Your task to perform on an android device: Clear the cart on costco. Add "razer blade" to the cart on costco, then select checkout. Image 0: 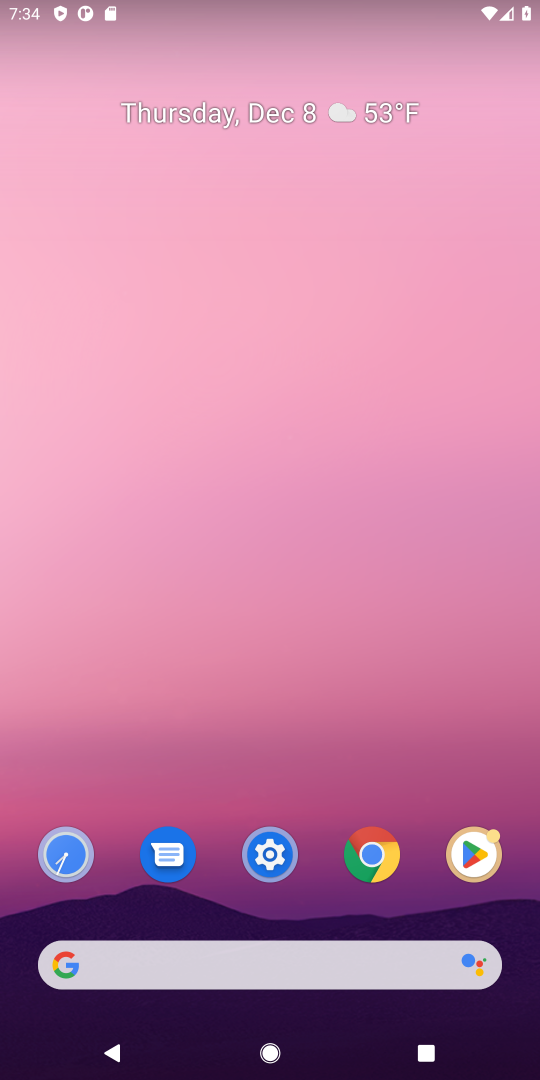
Step 0: press home button
Your task to perform on an android device: Clear the cart on costco. Add "razer blade" to the cart on costco, then select checkout. Image 1: 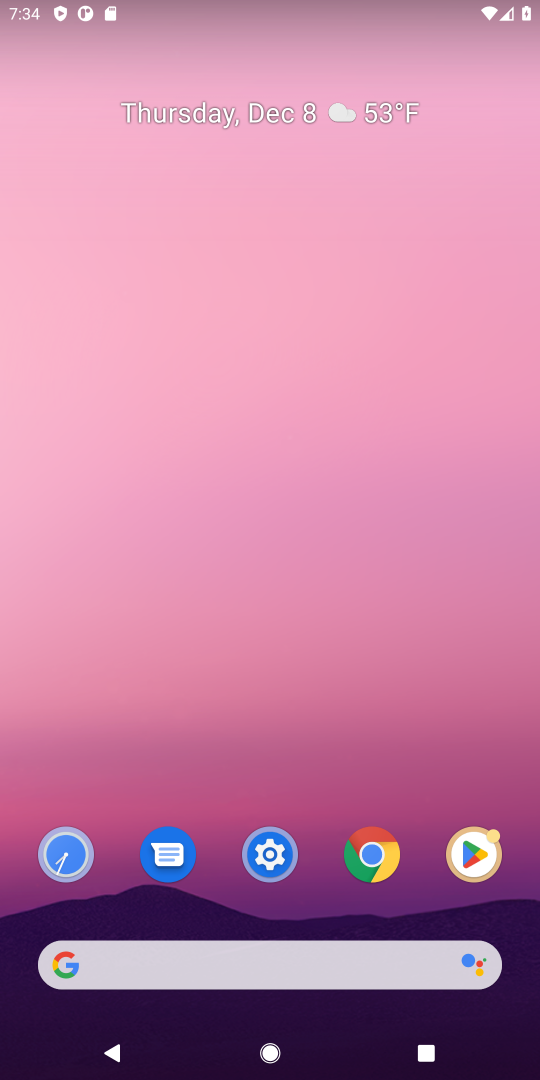
Step 1: click (87, 958)
Your task to perform on an android device: Clear the cart on costco. Add "razer blade" to the cart on costco, then select checkout. Image 2: 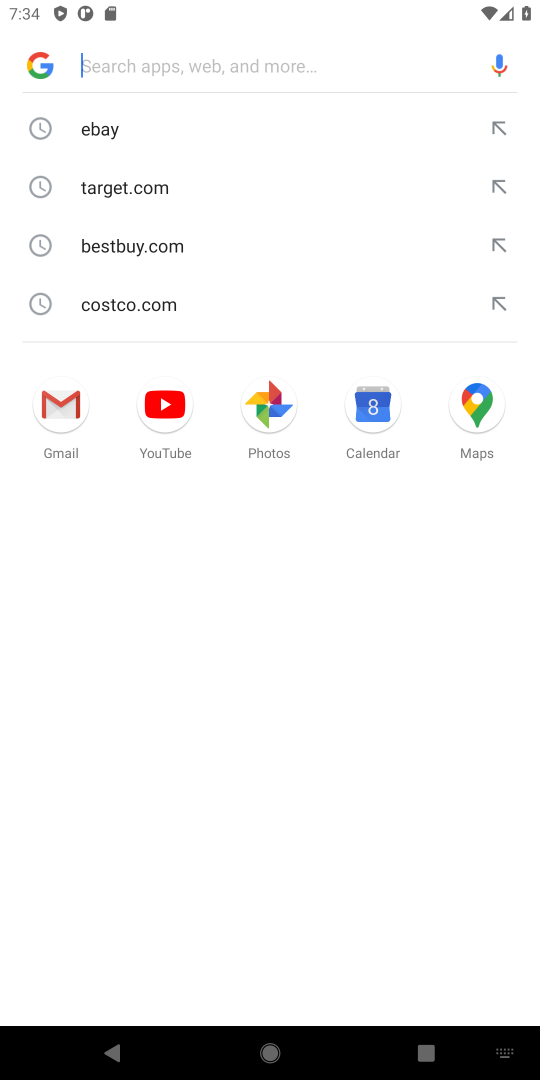
Step 2: type "costco"
Your task to perform on an android device: Clear the cart on costco. Add "razer blade" to the cart on costco, then select checkout. Image 3: 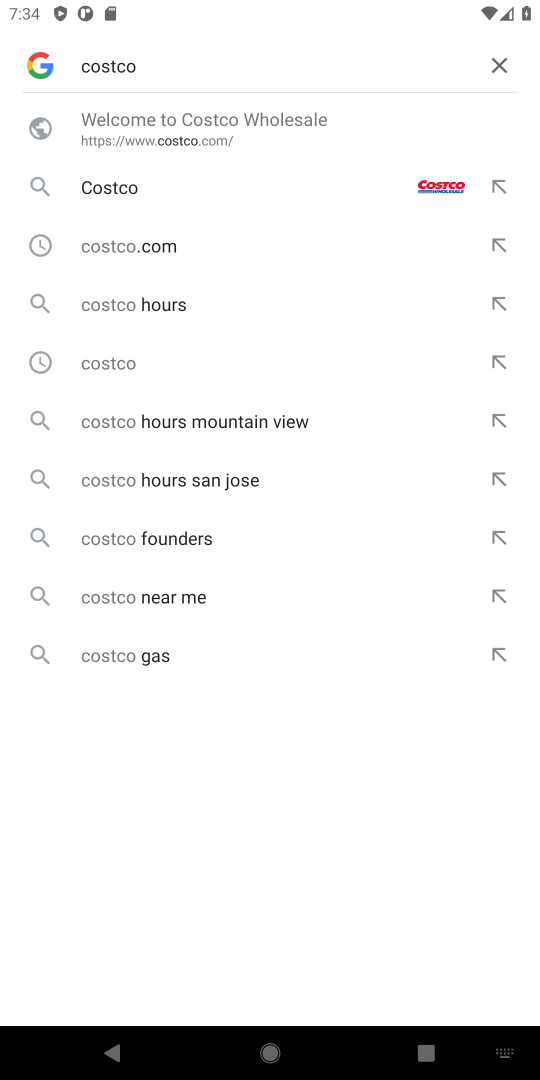
Step 3: press enter
Your task to perform on an android device: Clear the cart on costco. Add "razer blade" to the cart on costco, then select checkout. Image 4: 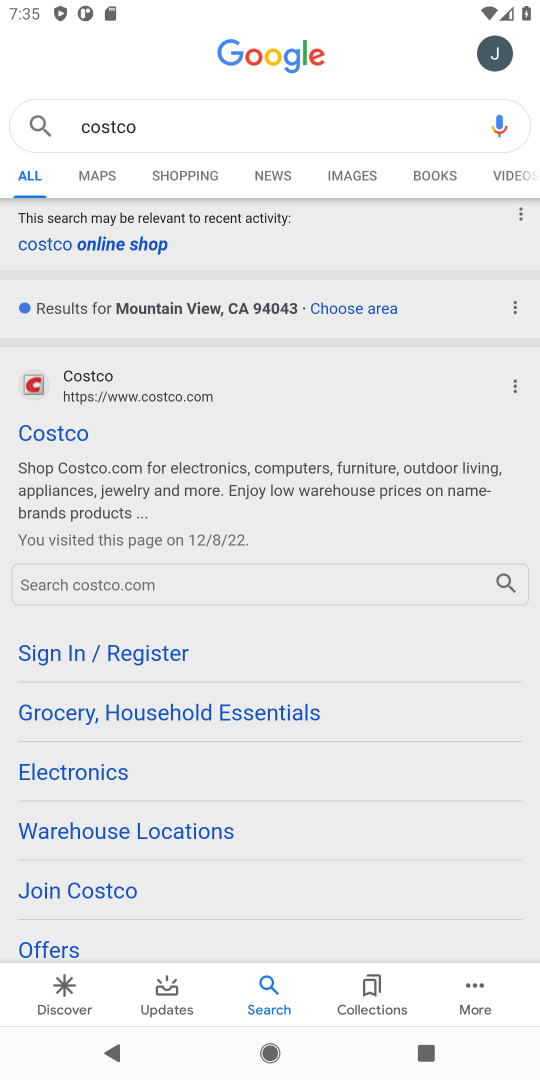
Step 4: click (43, 437)
Your task to perform on an android device: Clear the cart on costco. Add "razer blade" to the cart on costco, then select checkout. Image 5: 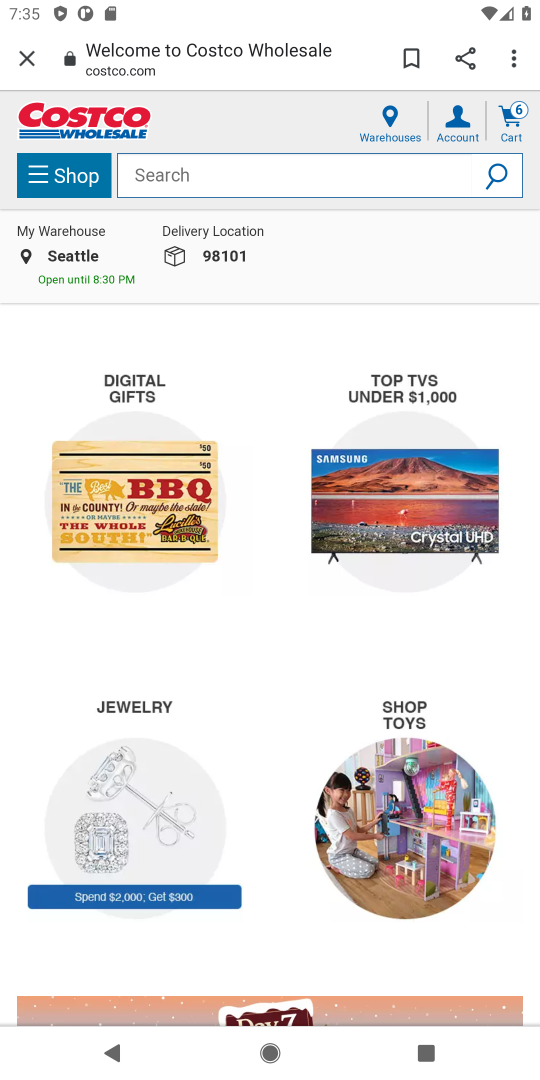
Step 5: click (508, 114)
Your task to perform on an android device: Clear the cart on costco. Add "razer blade" to the cart on costco, then select checkout. Image 6: 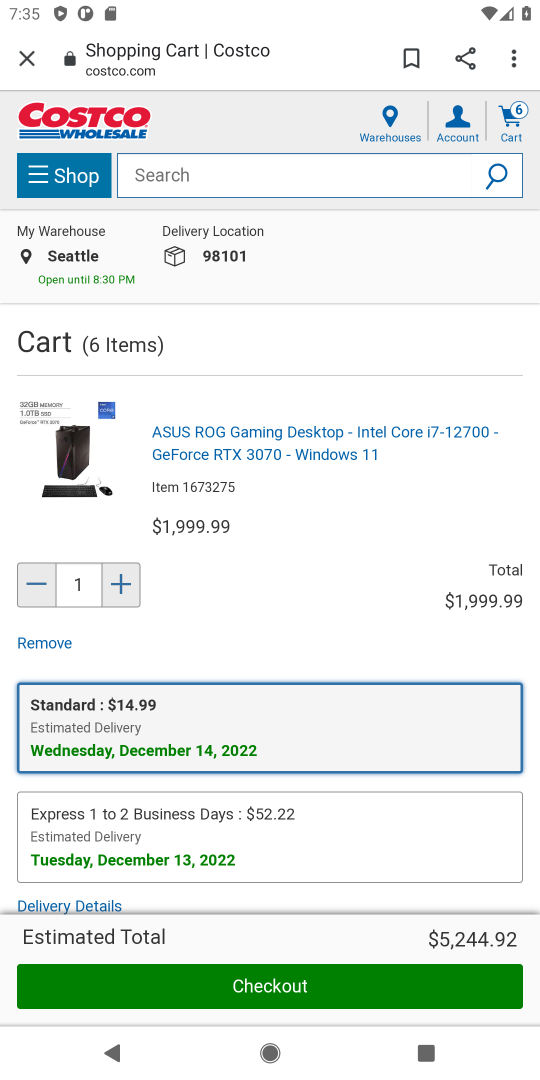
Step 6: click (30, 647)
Your task to perform on an android device: Clear the cart on costco. Add "razer blade" to the cart on costco, then select checkout. Image 7: 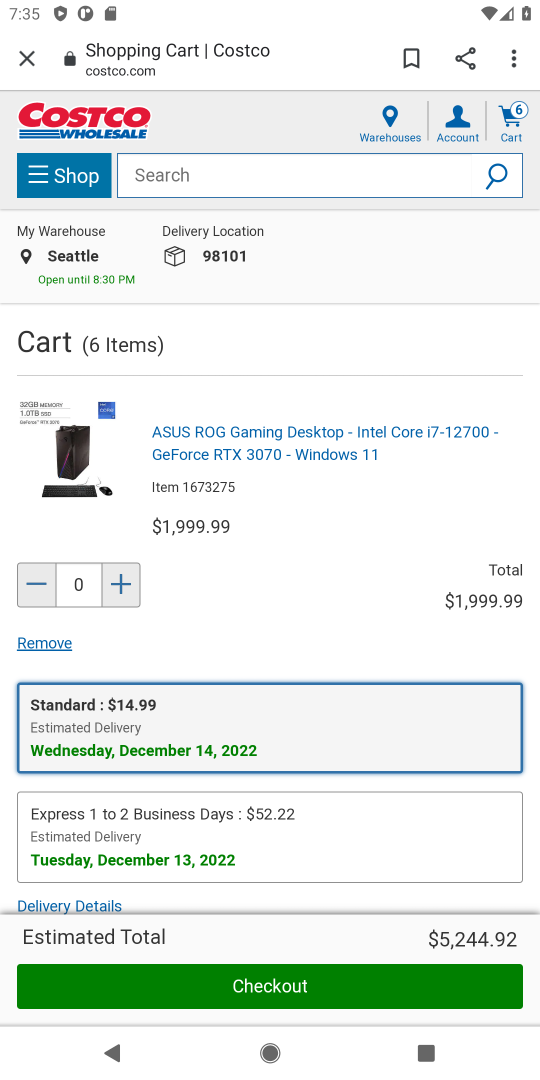
Step 7: drag from (320, 799) to (325, 381)
Your task to perform on an android device: Clear the cart on costco. Add "razer blade" to the cart on costco, then select checkout. Image 8: 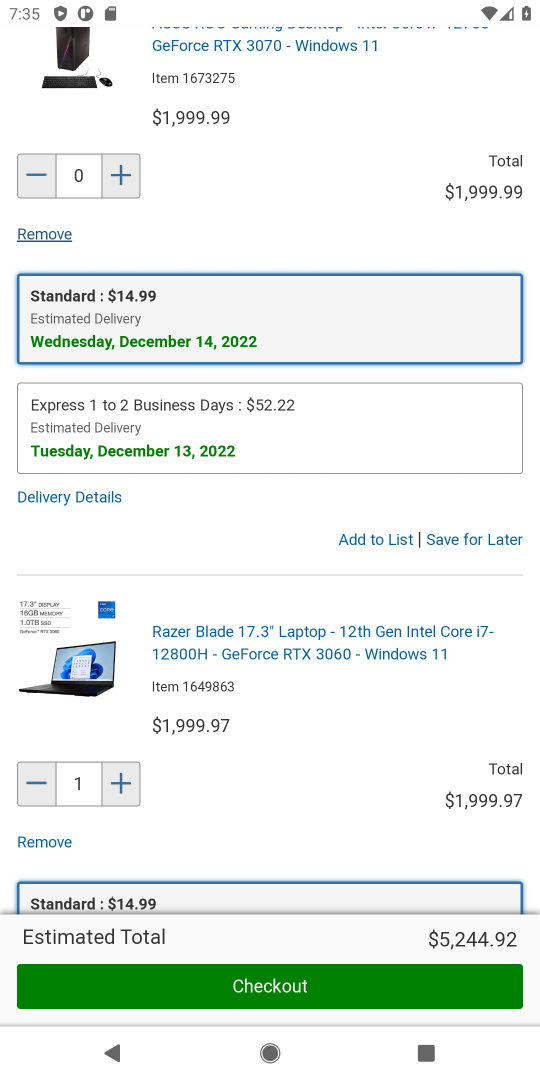
Step 8: click (31, 836)
Your task to perform on an android device: Clear the cart on costco. Add "razer blade" to the cart on costco, then select checkout. Image 9: 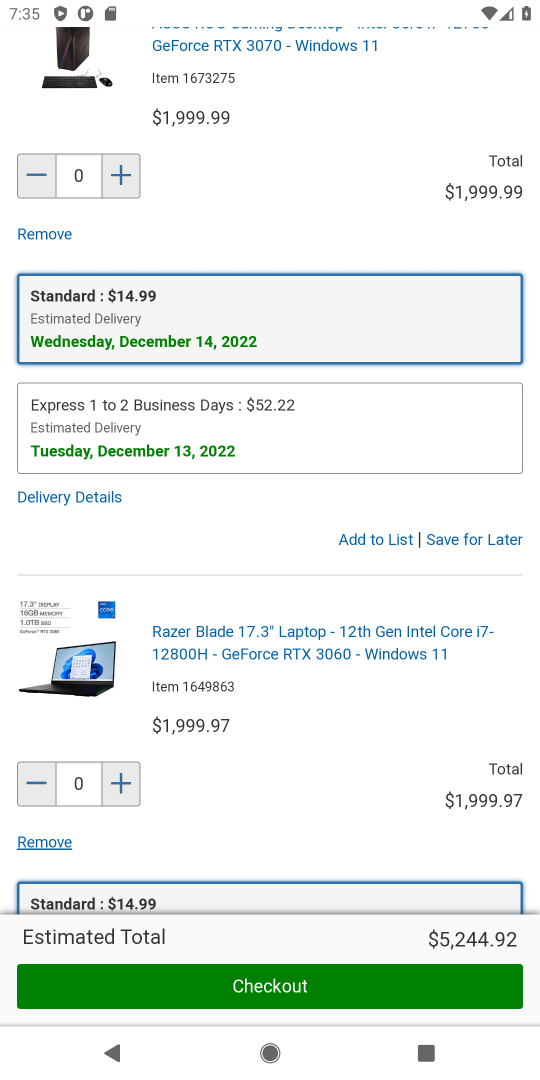
Step 9: drag from (257, 815) to (295, 370)
Your task to perform on an android device: Clear the cart on costco. Add "razer blade" to the cart on costco, then select checkout. Image 10: 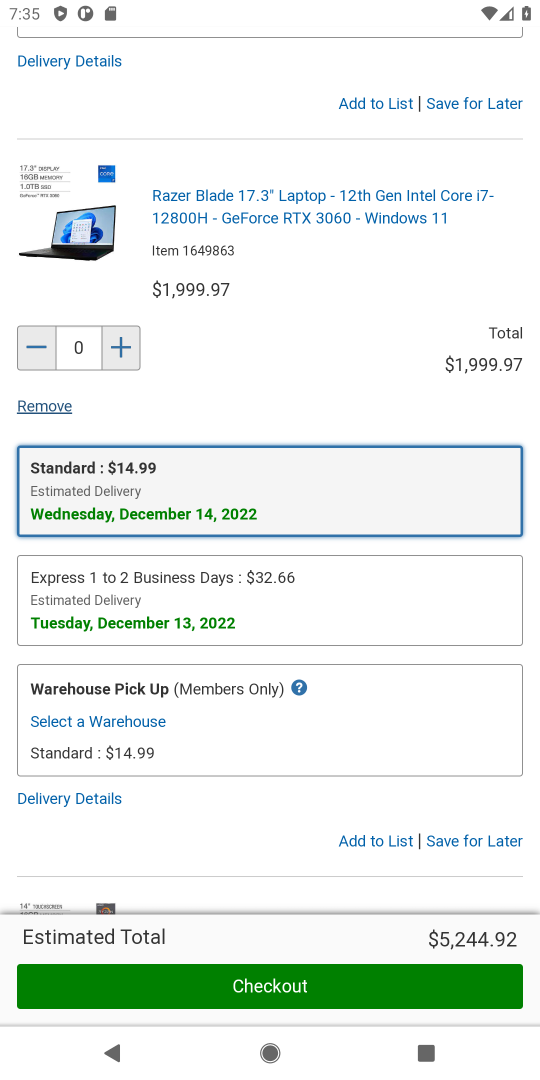
Step 10: drag from (323, 244) to (309, 825)
Your task to perform on an android device: Clear the cart on costco. Add "razer blade" to the cart on costco, then select checkout. Image 11: 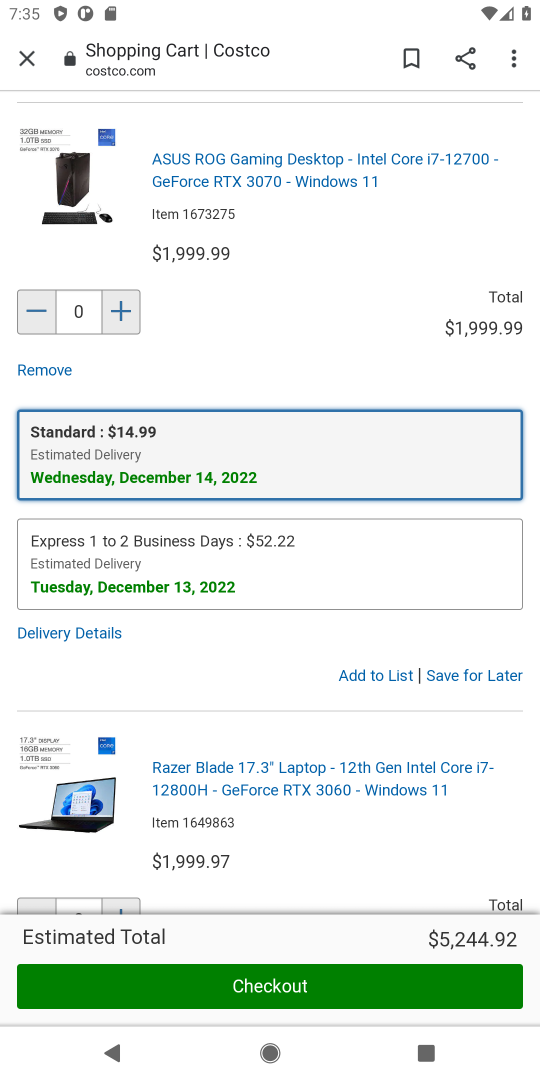
Step 11: drag from (347, 161) to (306, 750)
Your task to perform on an android device: Clear the cart on costco. Add "razer blade" to the cart on costco, then select checkout. Image 12: 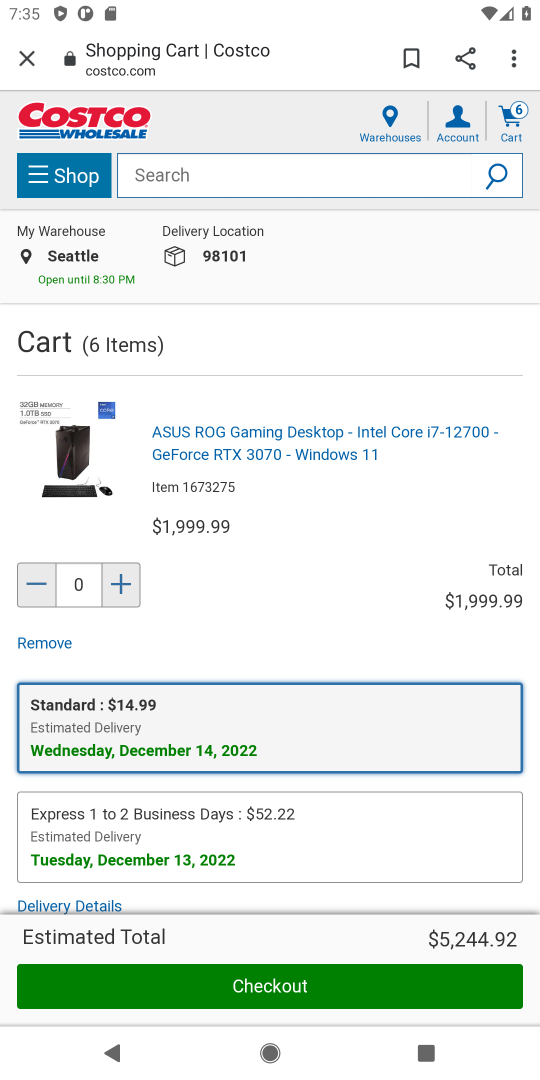
Step 12: click (180, 167)
Your task to perform on an android device: Clear the cart on costco. Add "razer blade" to the cart on costco, then select checkout. Image 13: 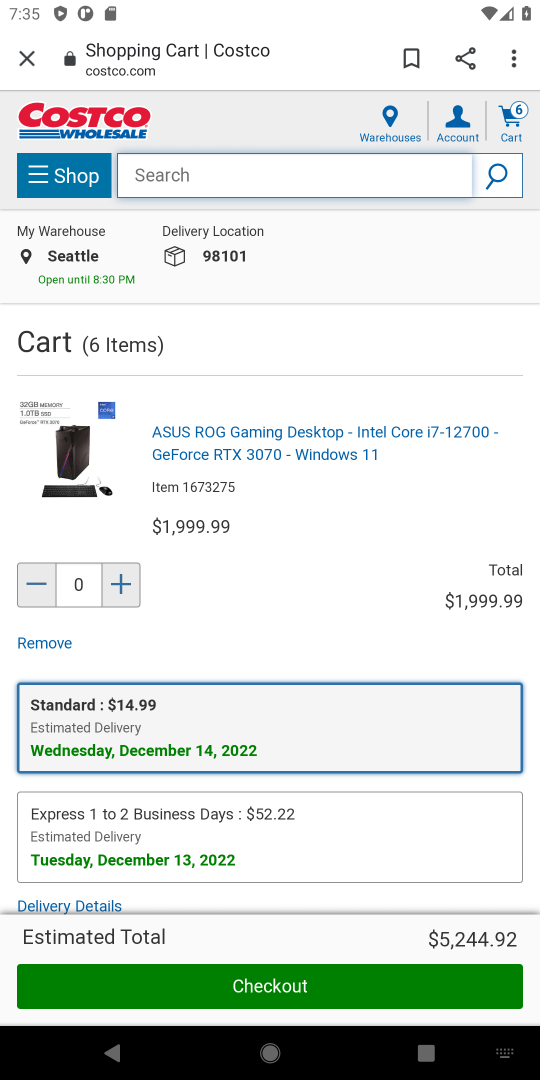
Step 13: type "razer blade"
Your task to perform on an android device: Clear the cart on costco. Add "razer blade" to the cart on costco, then select checkout. Image 14: 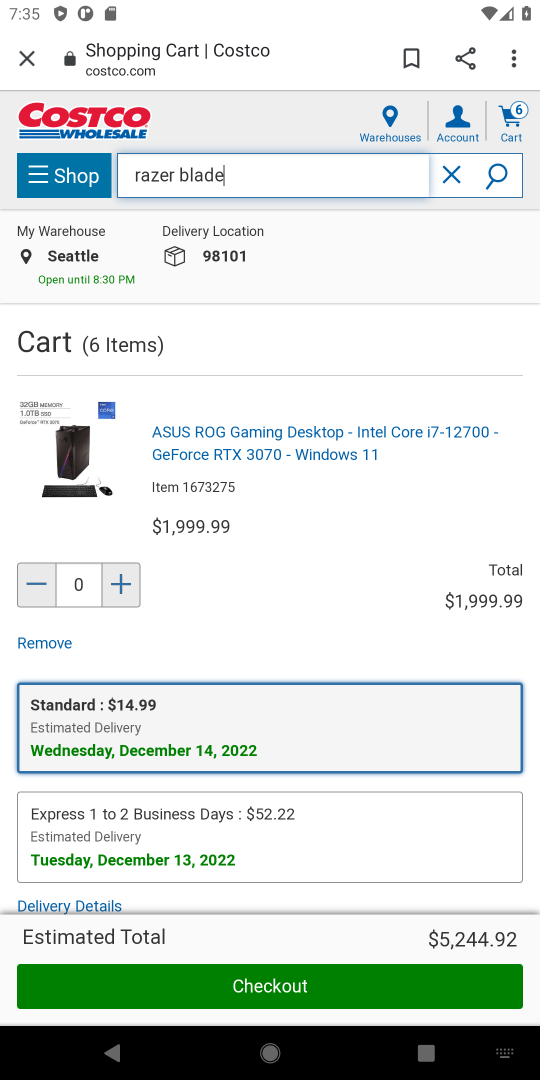
Step 14: press enter
Your task to perform on an android device: Clear the cart on costco. Add "razer blade" to the cart on costco, then select checkout. Image 15: 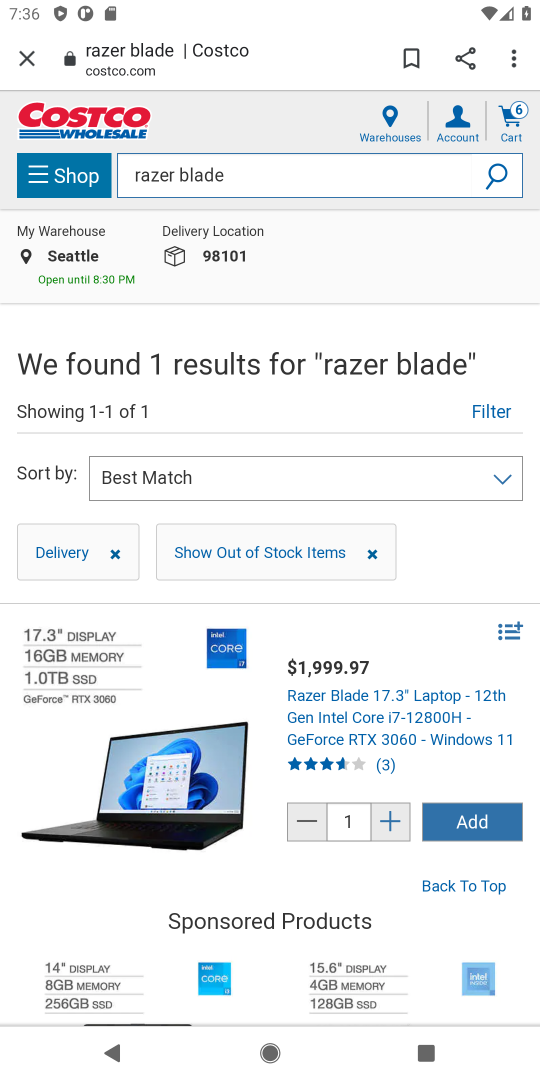
Step 15: click (481, 824)
Your task to perform on an android device: Clear the cart on costco. Add "razer blade" to the cart on costco, then select checkout. Image 16: 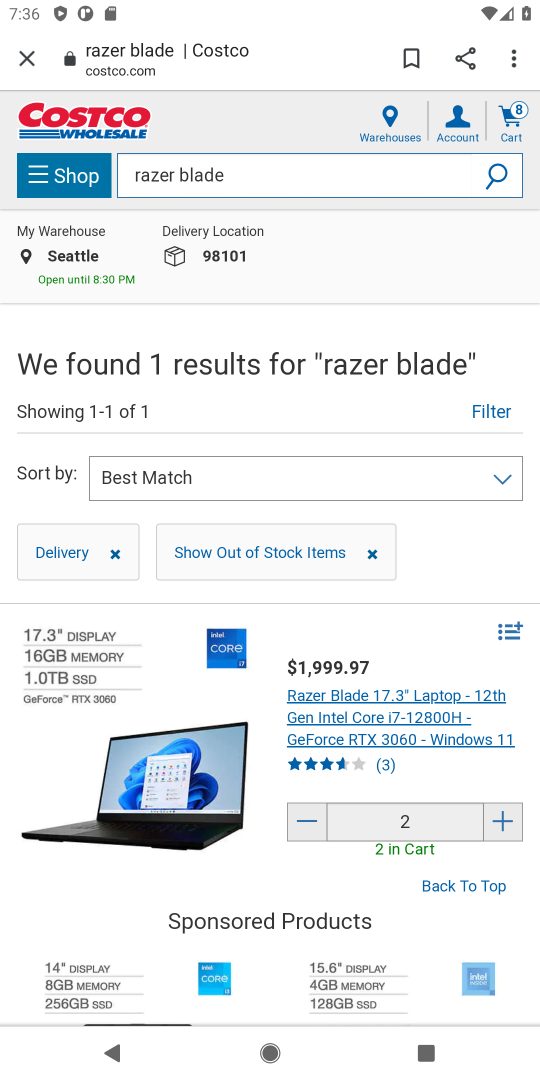
Step 16: click (506, 115)
Your task to perform on an android device: Clear the cart on costco. Add "razer blade" to the cart on costco, then select checkout. Image 17: 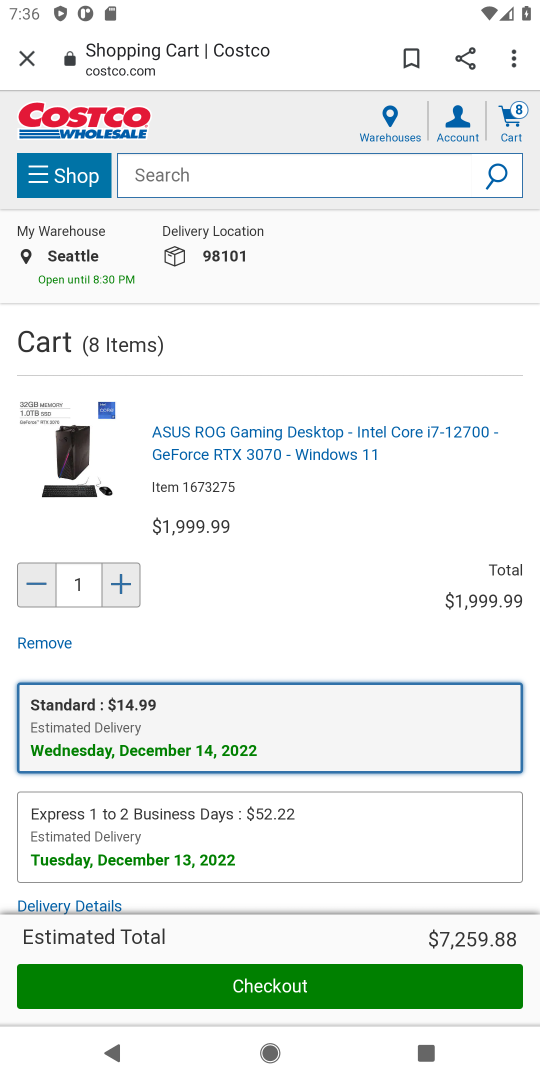
Step 17: click (262, 983)
Your task to perform on an android device: Clear the cart on costco. Add "razer blade" to the cart on costco, then select checkout. Image 18: 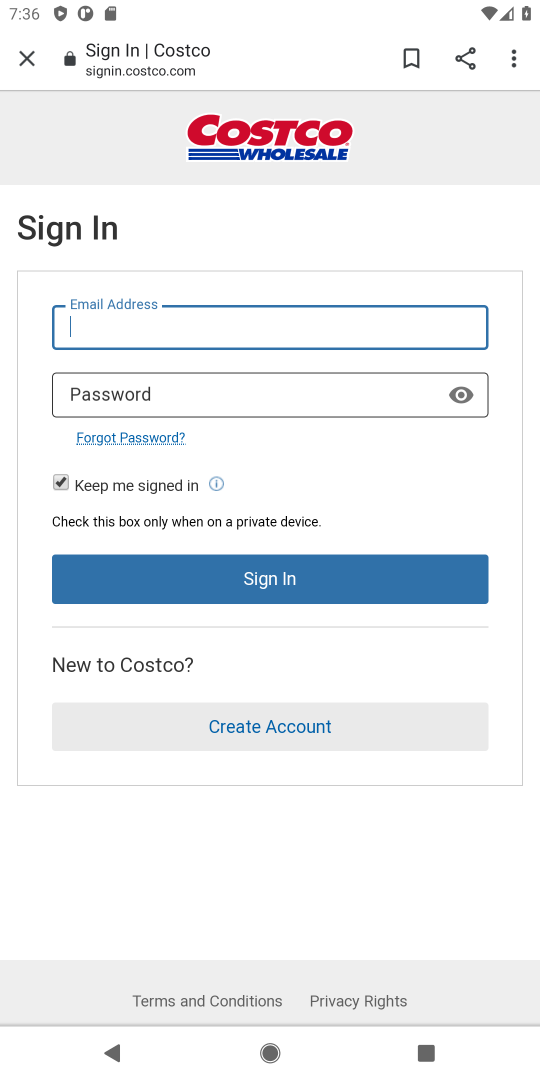
Step 18: task complete